Your task to perform on an android device: Go to Reddit.com Image 0: 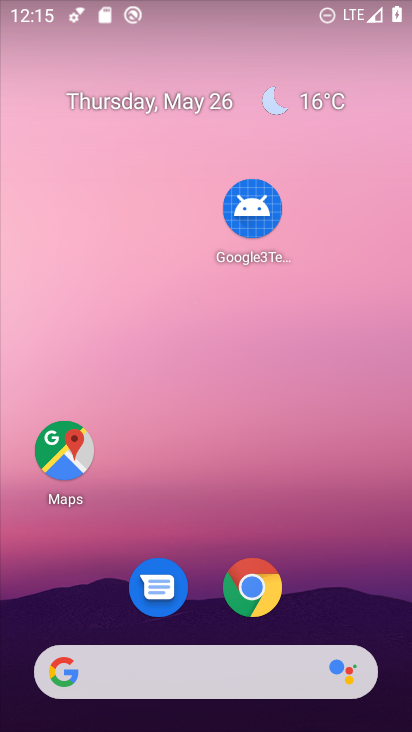
Step 0: click (258, 587)
Your task to perform on an android device: Go to Reddit.com Image 1: 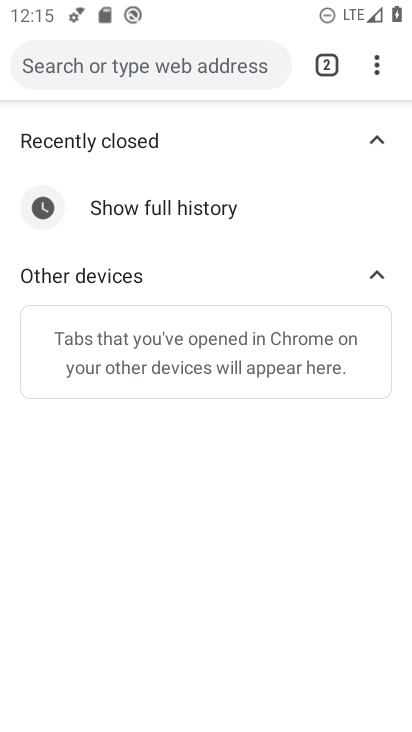
Step 1: click (195, 71)
Your task to perform on an android device: Go to Reddit.com Image 2: 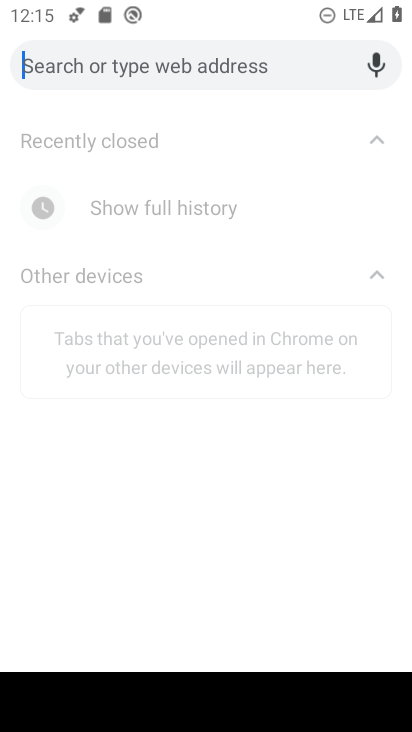
Step 2: type "reddit.com"
Your task to perform on an android device: Go to Reddit.com Image 3: 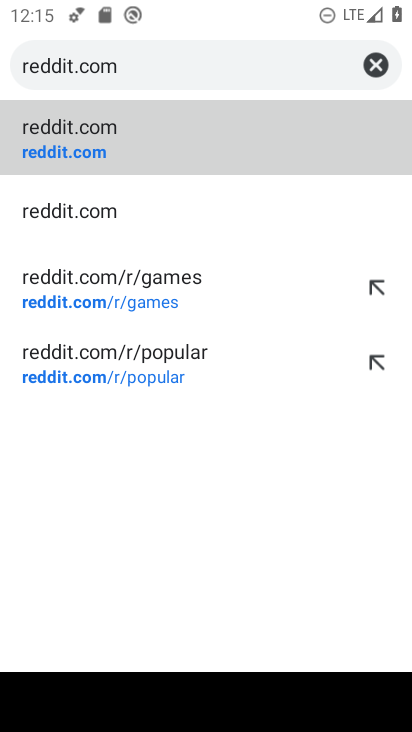
Step 3: click (167, 125)
Your task to perform on an android device: Go to Reddit.com Image 4: 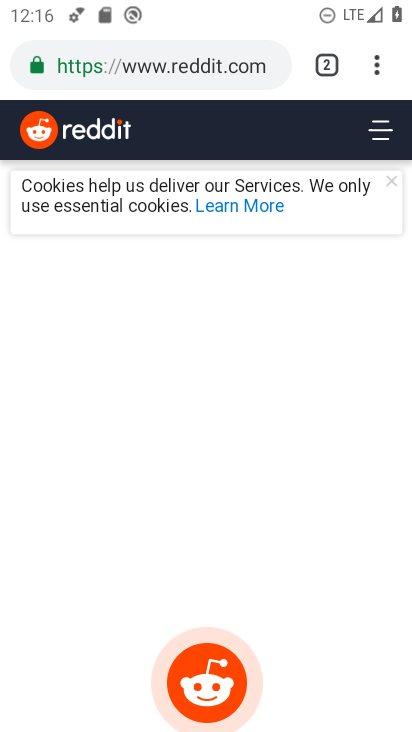
Step 4: task complete